Your task to perform on an android device: Toggle the flashlight Image 0: 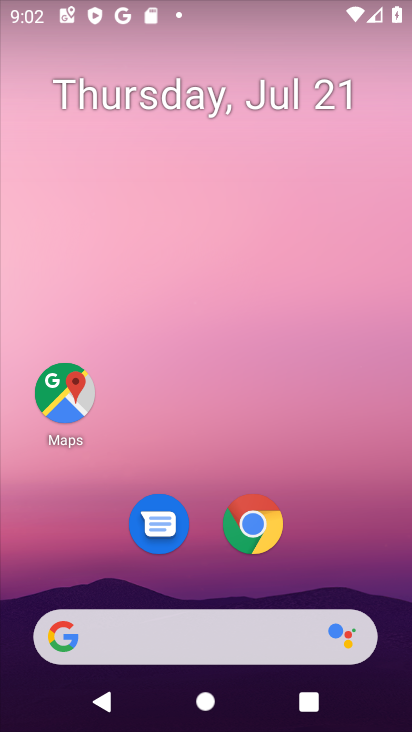
Step 0: press home button
Your task to perform on an android device: Toggle the flashlight Image 1: 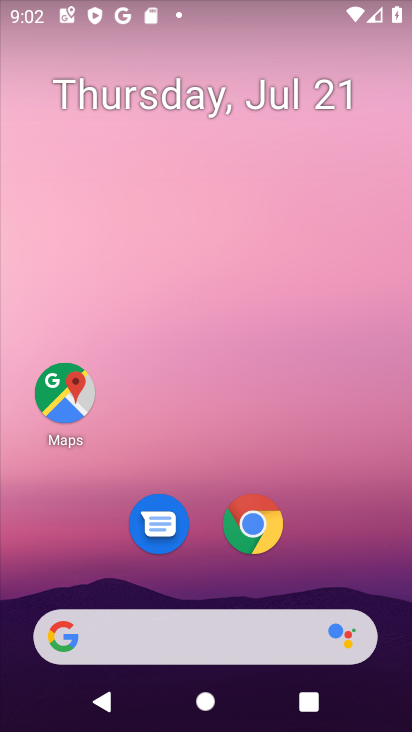
Step 1: task complete